Your task to perform on an android device: Set an alarm for 7am Image 0: 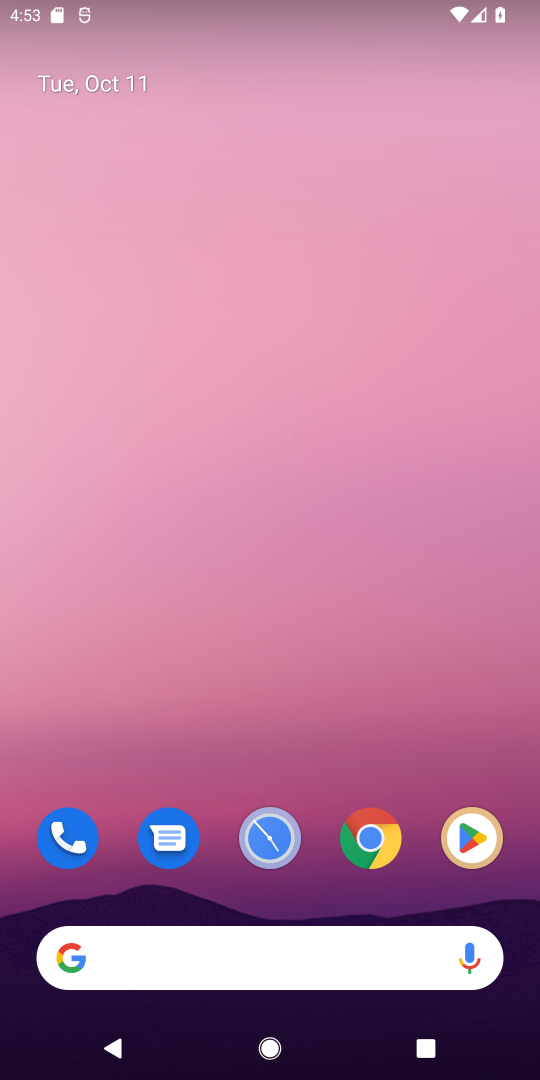
Step 0: click (271, 842)
Your task to perform on an android device: Set an alarm for 7am Image 1: 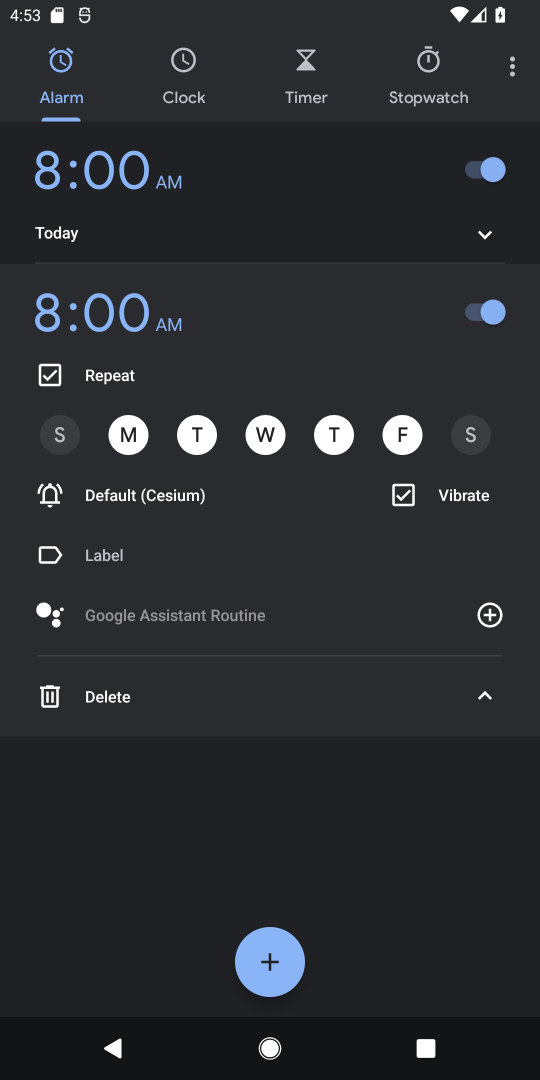
Step 1: click (480, 241)
Your task to perform on an android device: Set an alarm for 7am Image 2: 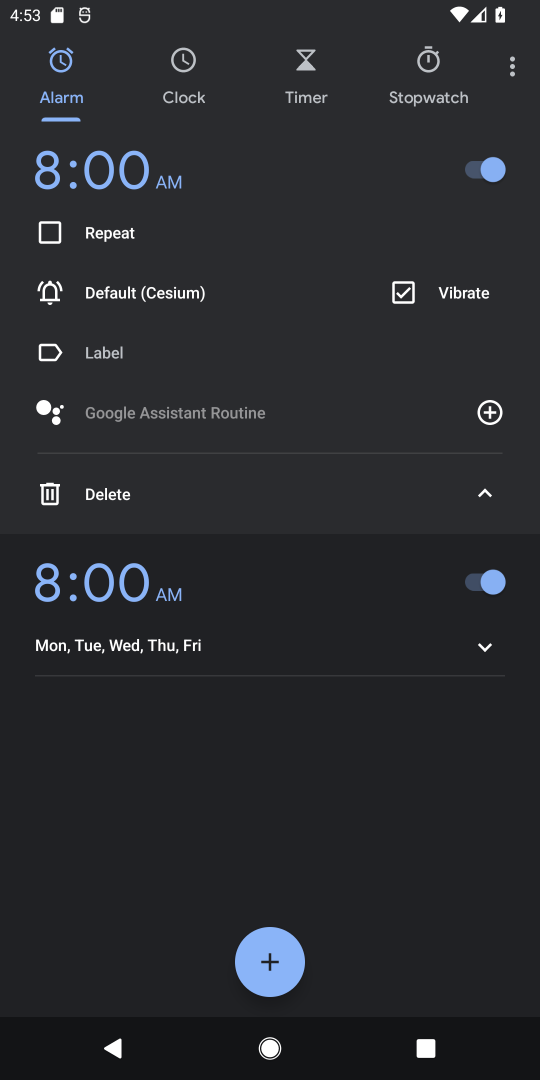
Step 2: click (173, 186)
Your task to perform on an android device: Set an alarm for 7am Image 3: 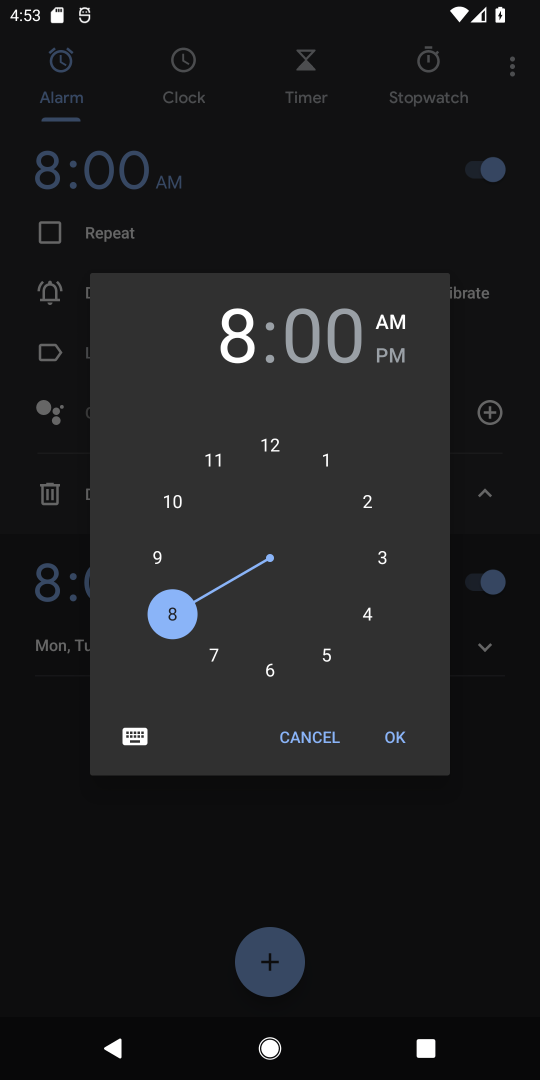
Step 3: click (207, 667)
Your task to perform on an android device: Set an alarm for 7am Image 4: 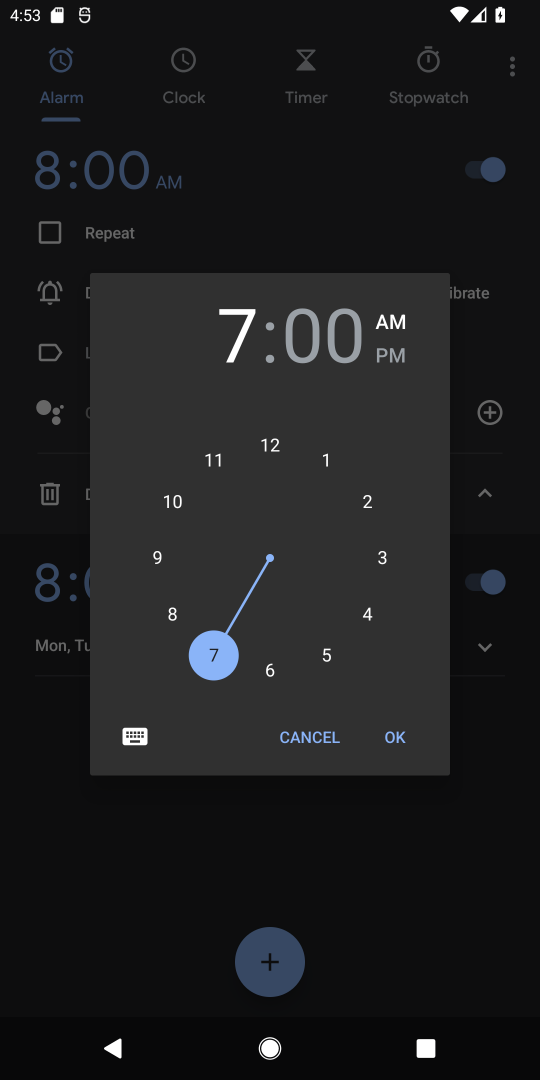
Step 4: click (217, 655)
Your task to perform on an android device: Set an alarm for 7am Image 5: 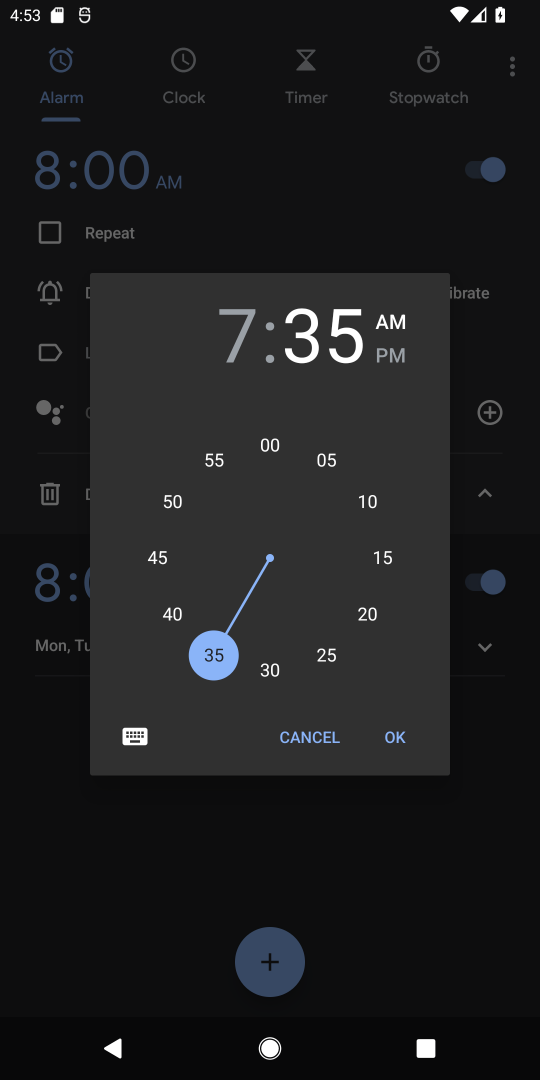
Step 5: click (213, 657)
Your task to perform on an android device: Set an alarm for 7am Image 6: 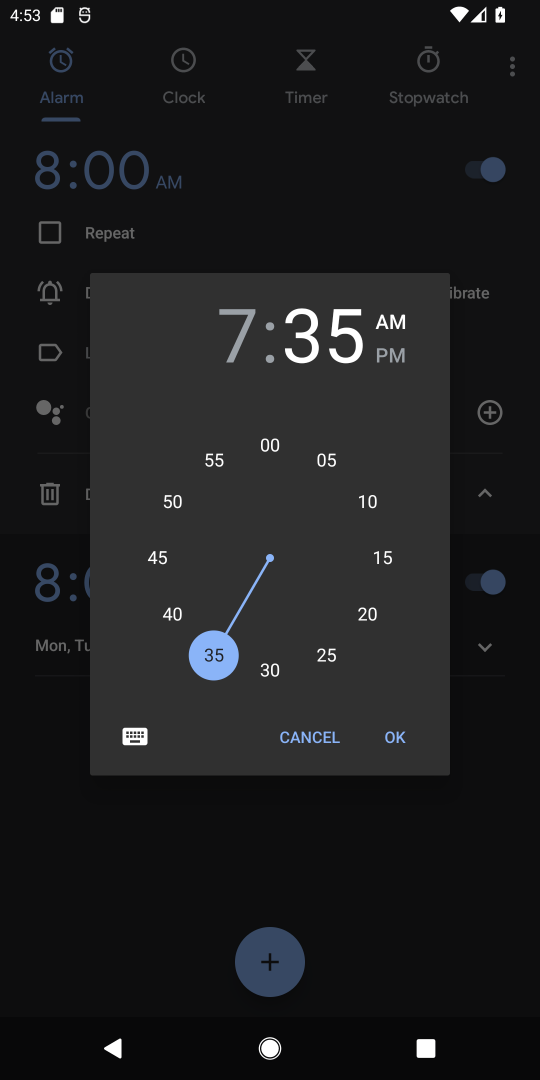
Step 6: click (268, 450)
Your task to perform on an android device: Set an alarm for 7am Image 7: 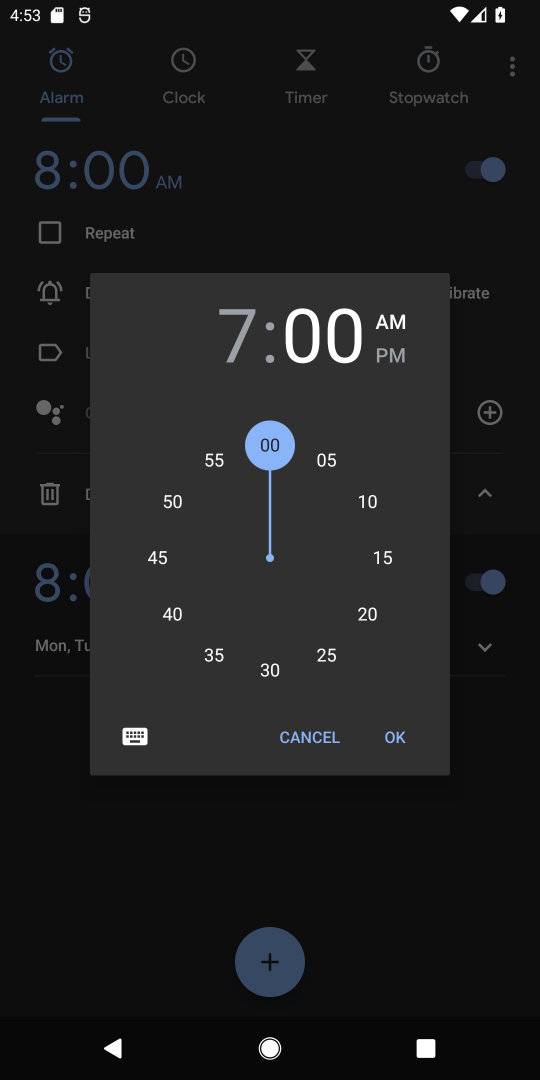
Step 7: click (392, 741)
Your task to perform on an android device: Set an alarm for 7am Image 8: 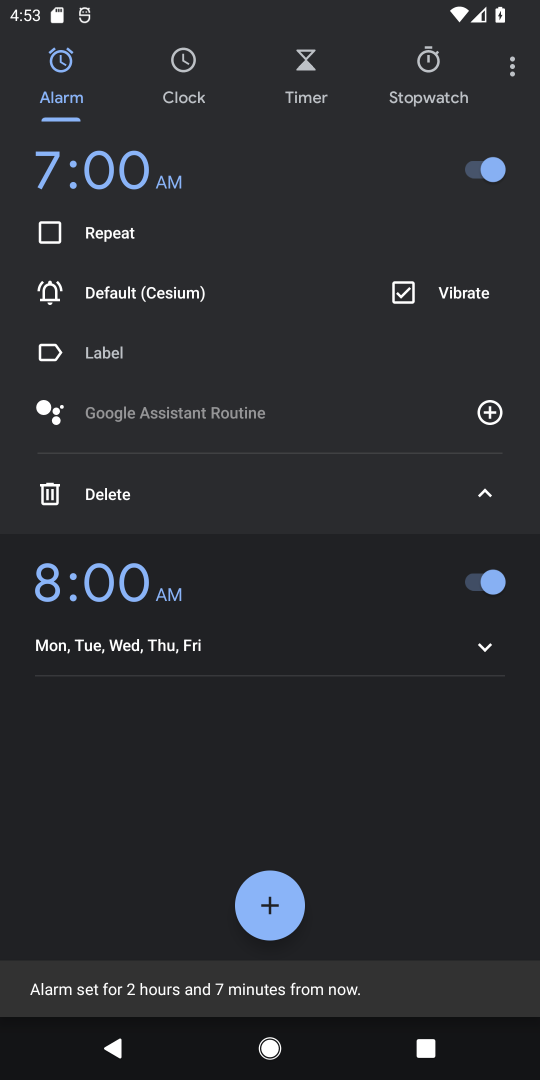
Step 8: click (481, 650)
Your task to perform on an android device: Set an alarm for 7am Image 9: 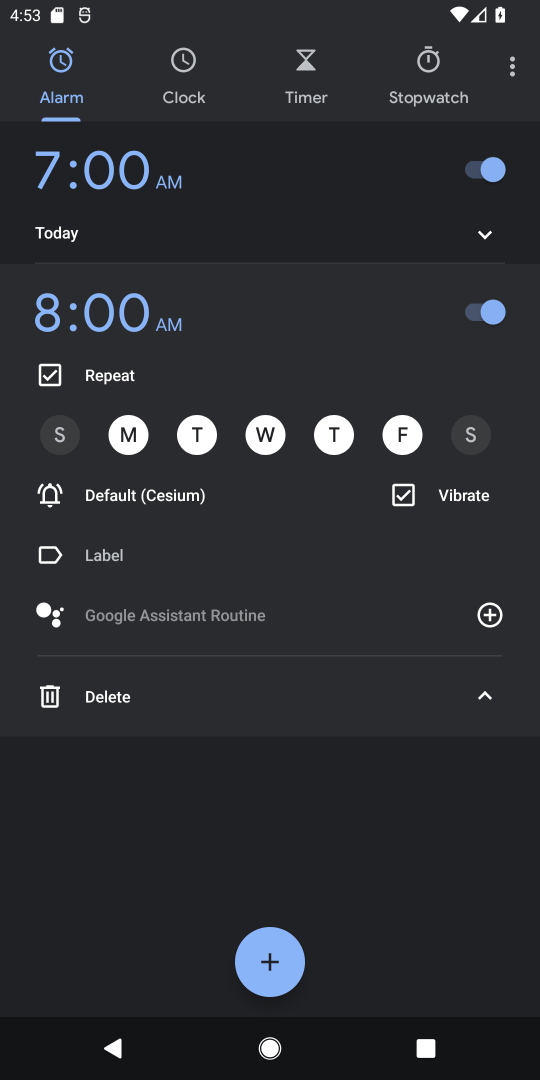
Step 9: click (117, 320)
Your task to perform on an android device: Set an alarm for 7am Image 10: 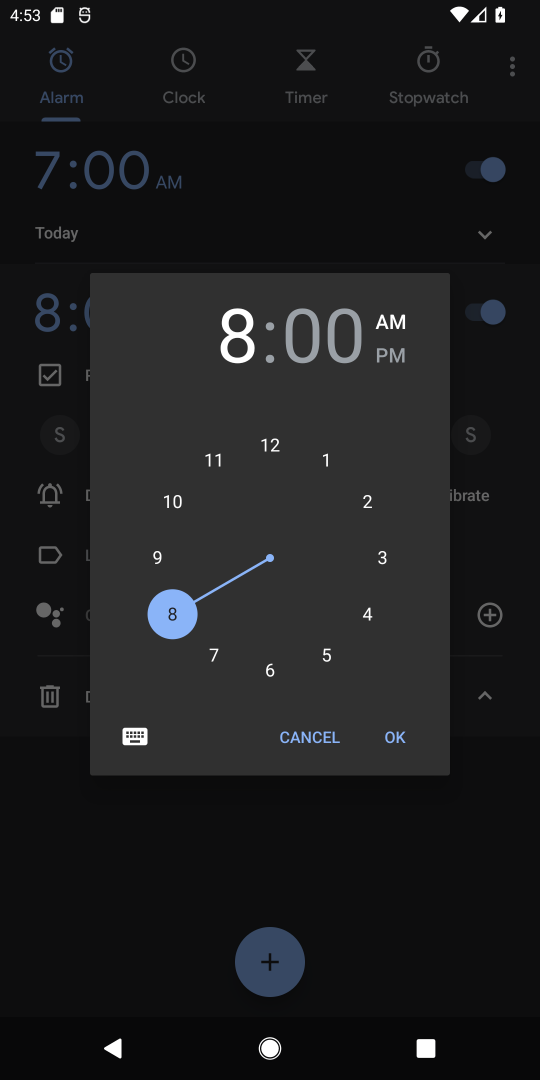
Step 10: click (215, 653)
Your task to perform on an android device: Set an alarm for 7am Image 11: 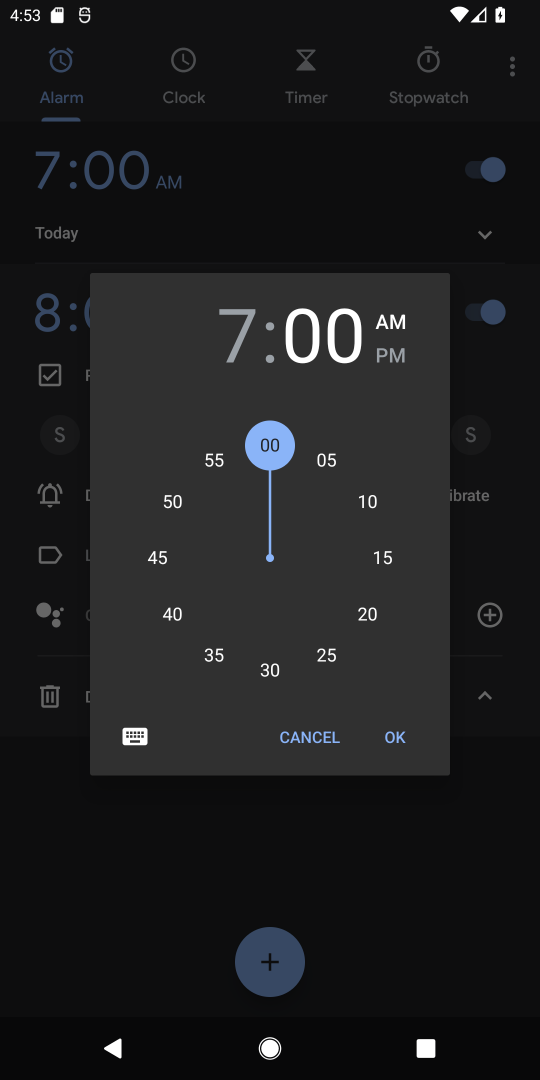
Step 11: click (399, 740)
Your task to perform on an android device: Set an alarm for 7am Image 12: 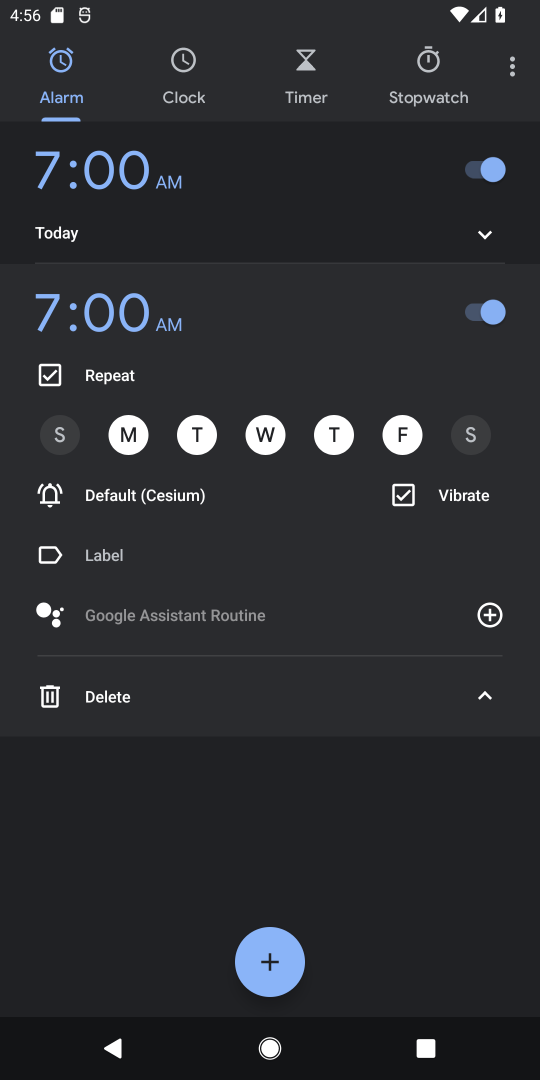
Step 12: task complete